Your task to perform on an android device: clear all cookies in the chrome app Image 0: 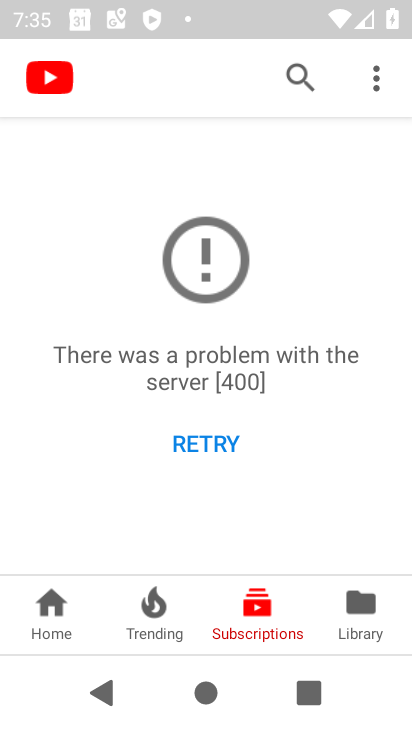
Step 0: press home button
Your task to perform on an android device: clear all cookies in the chrome app Image 1: 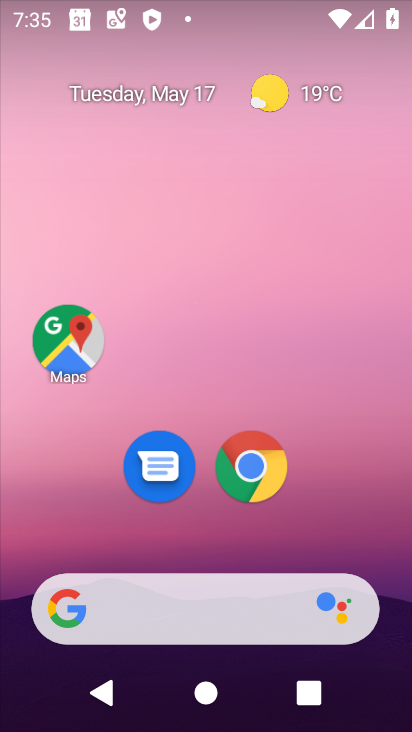
Step 1: click (261, 476)
Your task to perform on an android device: clear all cookies in the chrome app Image 2: 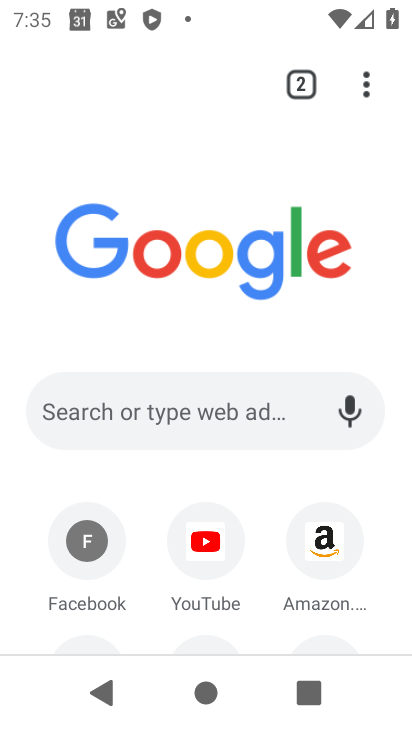
Step 2: drag from (365, 84) to (238, 528)
Your task to perform on an android device: clear all cookies in the chrome app Image 3: 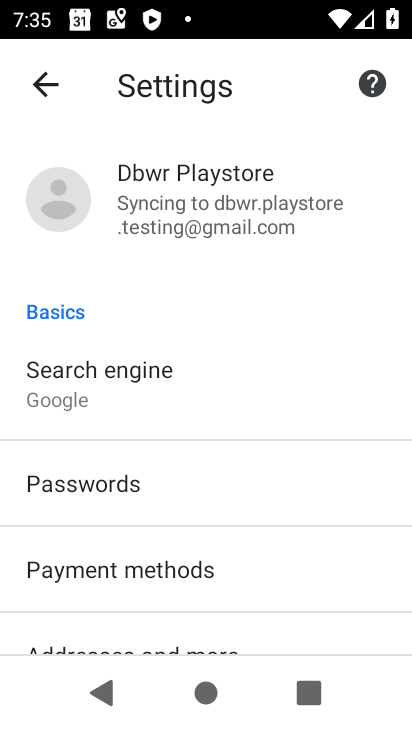
Step 3: drag from (234, 594) to (298, 265)
Your task to perform on an android device: clear all cookies in the chrome app Image 4: 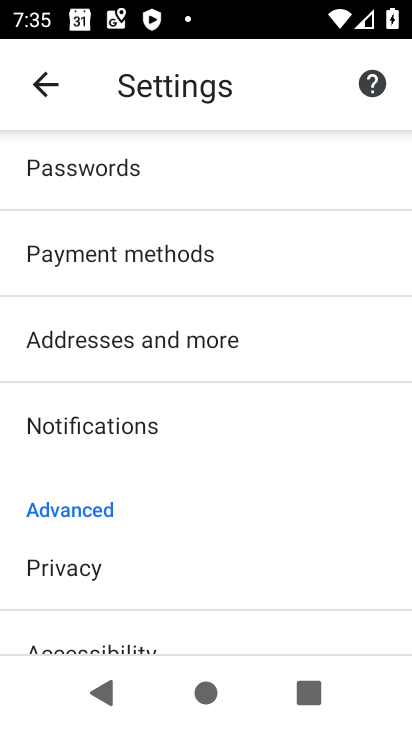
Step 4: drag from (235, 368) to (290, 236)
Your task to perform on an android device: clear all cookies in the chrome app Image 5: 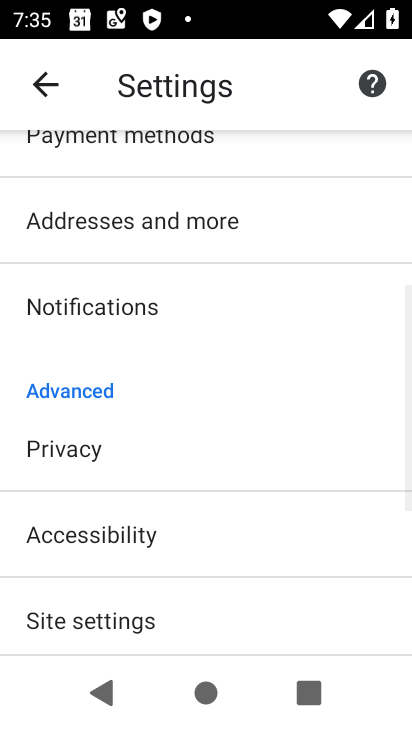
Step 5: click (77, 560)
Your task to perform on an android device: clear all cookies in the chrome app Image 6: 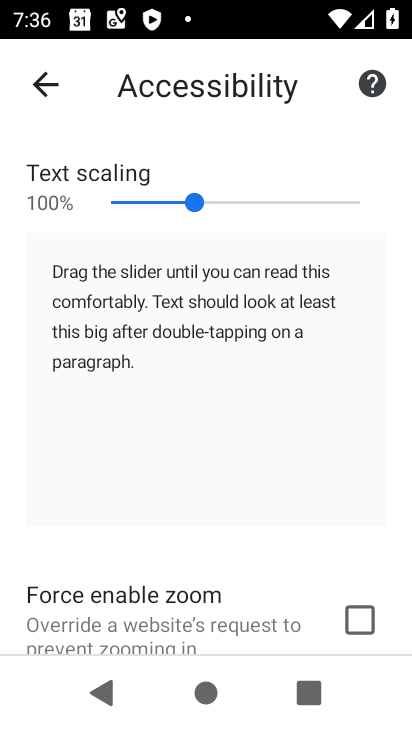
Step 6: click (45, 85)
Your task to perform on an android device: clear all cookies in the chrome app Image 7: 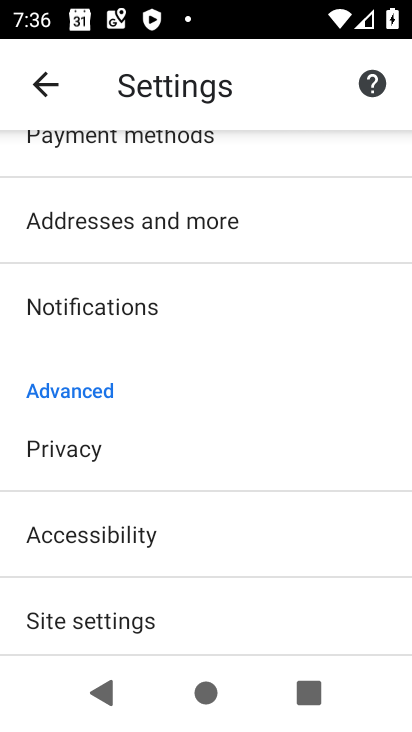
Step 7: click (64, 451)
Your task to perform on an android device: clear all cookies in the chrome app Image 8: 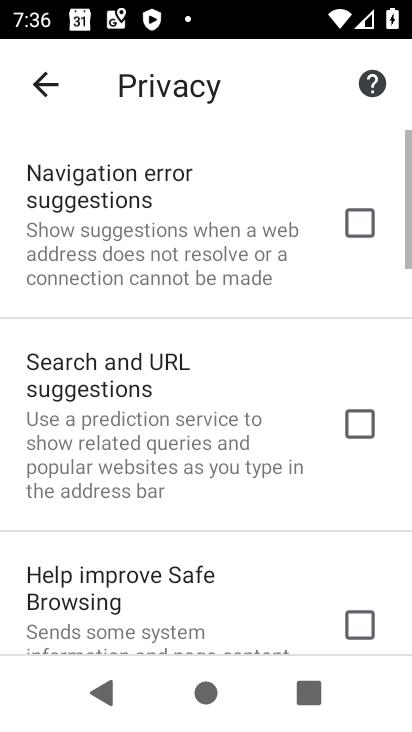
Step 8: drag from (179, 552) to (273, 153)
Your task to perform on an android device: clear all cookies in the chrome app Image 9: 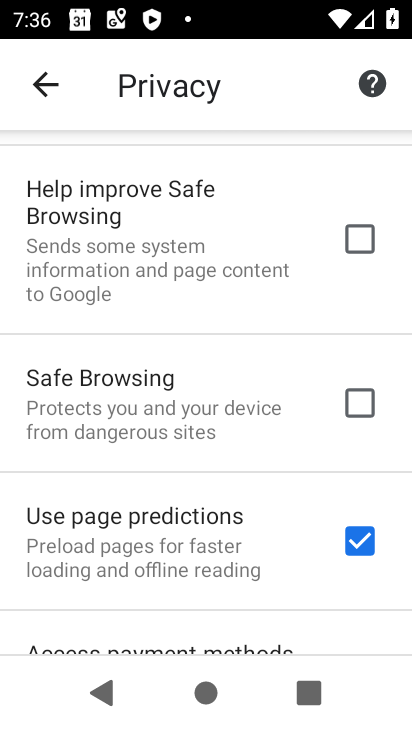
Step 9: drag from (178, 545) to (303, 117)
Your task to perform on an android device: clear all cookies in the chrome app Image 10: 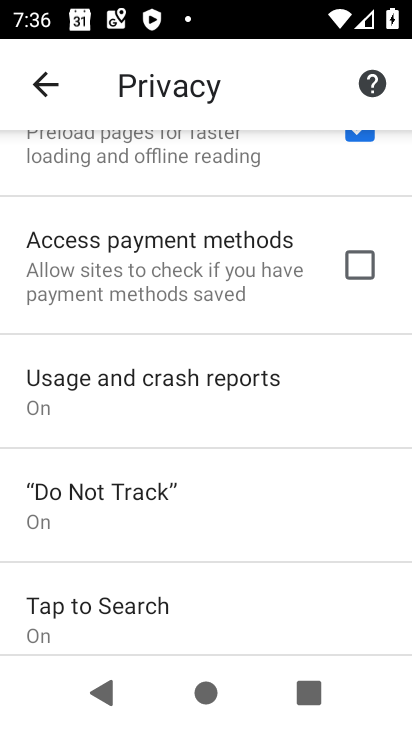
Step 10: drag from (213, 568) to (313, 134)
Your task to perform on an android device: clear all cookies in the chrome app Image 11: 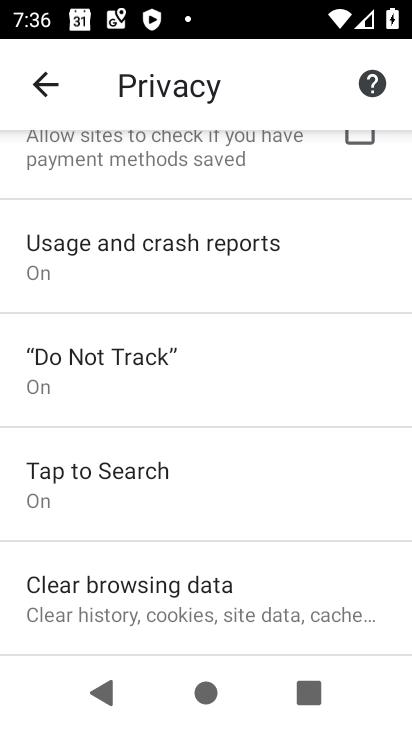
Step 11: click (217, 597)
Your task to perform on an android device: clear all cookies in the chrome app Image 12: 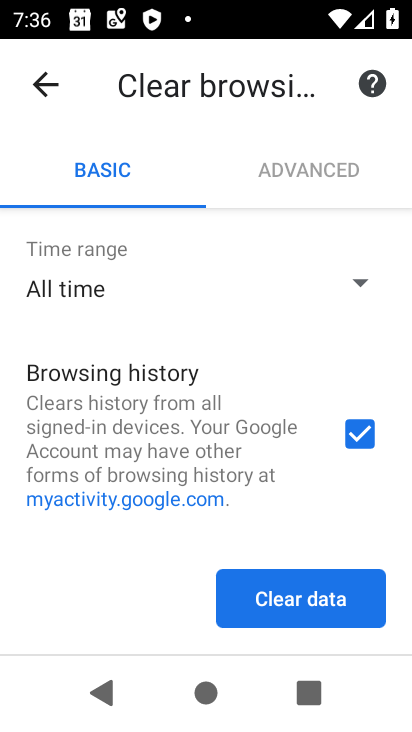
Step 12: click (351, 438)
Your task to perform on an android device: clear all cookies in the chrome app Image 13: 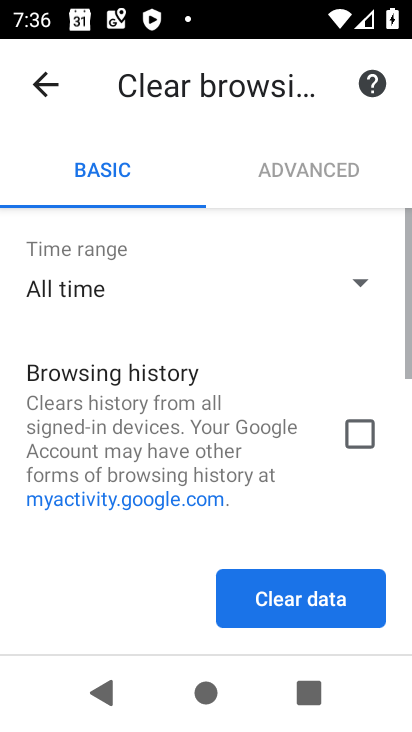
Step 13: drag from (142, 489) to (328, 170)
Your task to perform on an android device: clear all cookies in the chrome app Image 14: 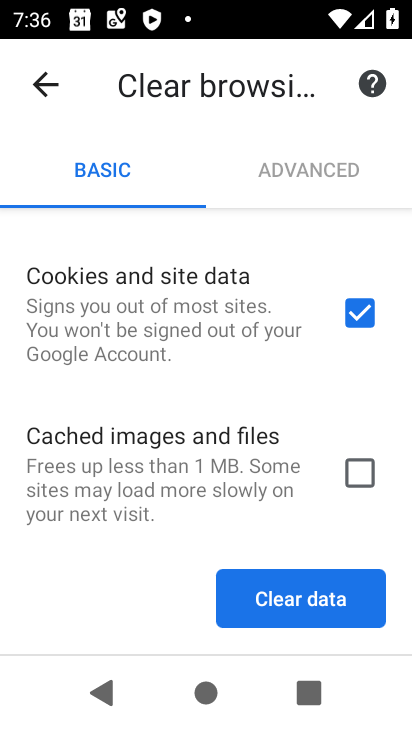
Step 14: click (329, 606)
Your task to perform on an android device: clear all cookies in the chrome app Image 15: 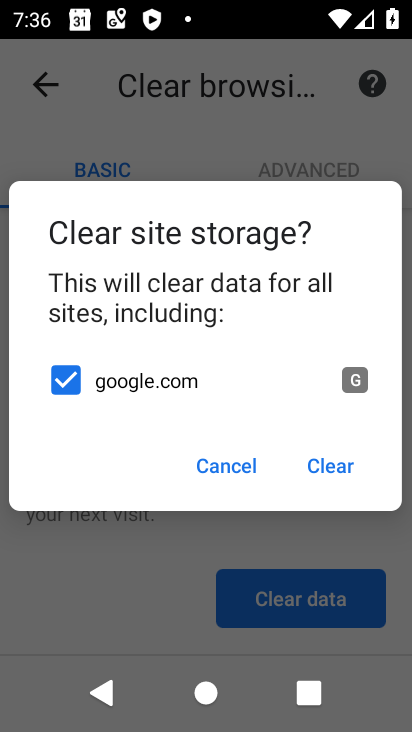
Step 15: click (337, 464)
Your task to perform on an android device: clear all cookies in the chrome app Image 16: 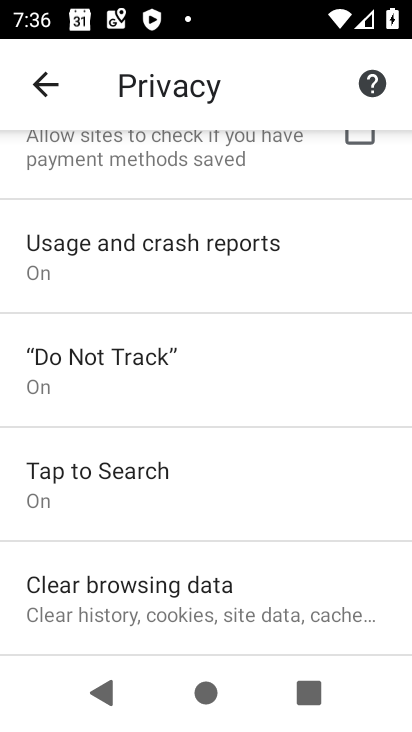
Step 16: task complete